Your task to perform on an android device: open app "Fetch Rewards" Image 0: 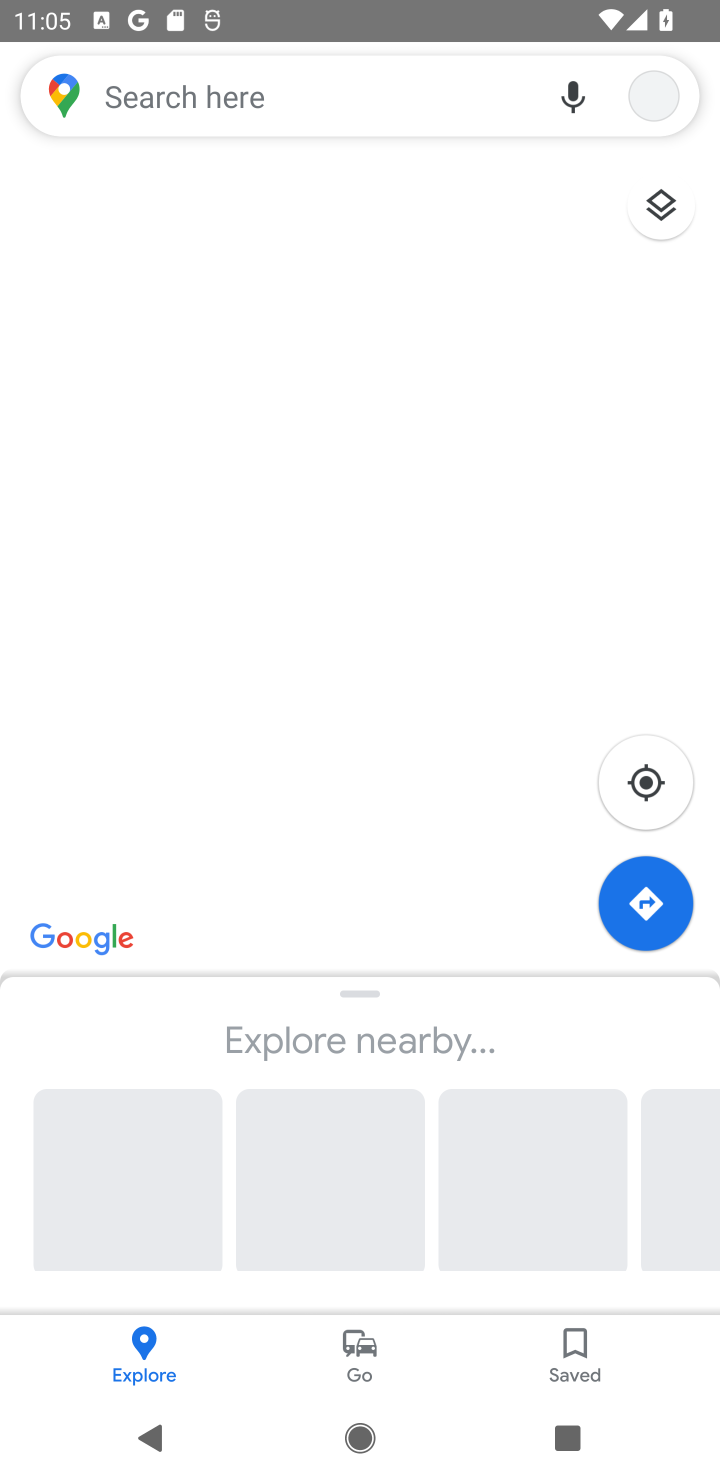
Step 0: press back button
Your task to perform on an android device: open app "Fetch Rewards" Image 1: 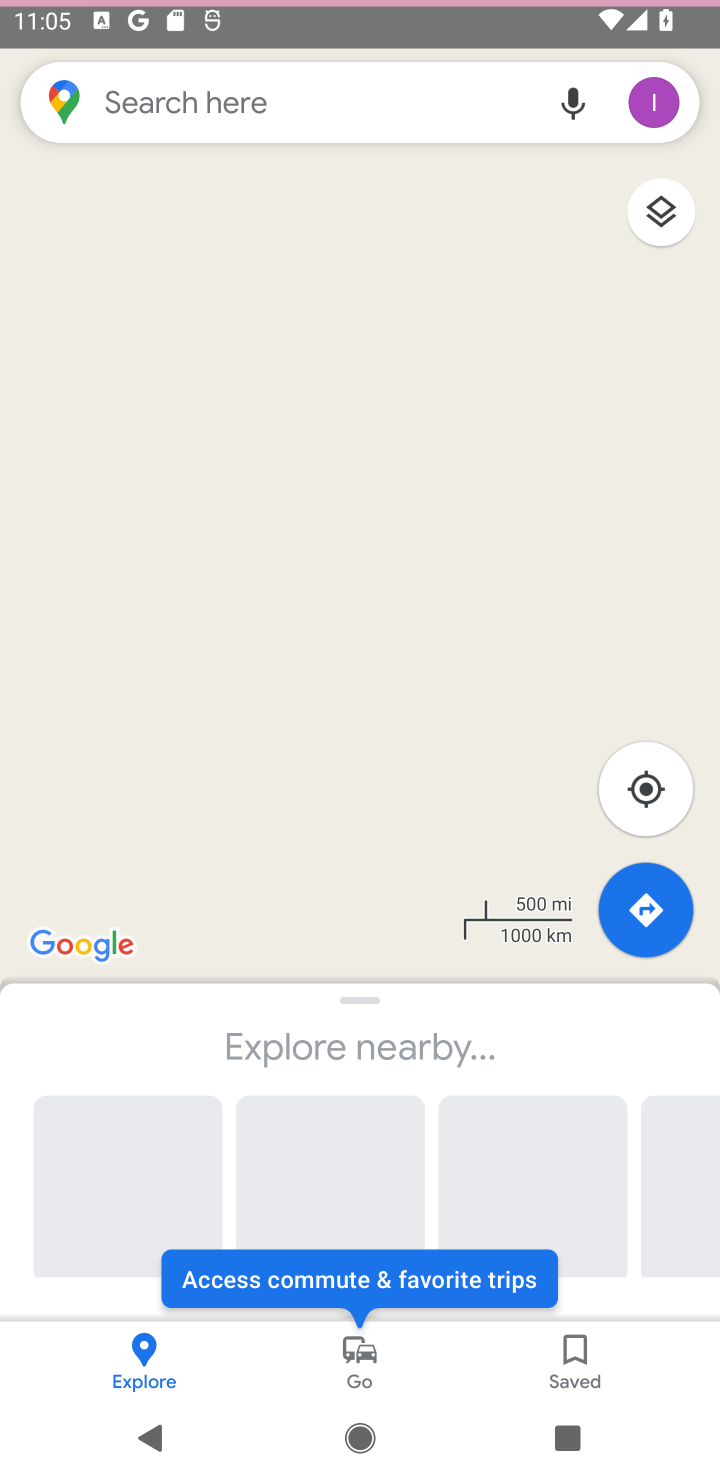
Step 1: press back button
Your task to perform on an android device: open app "Fetch Rewards" Image 2: 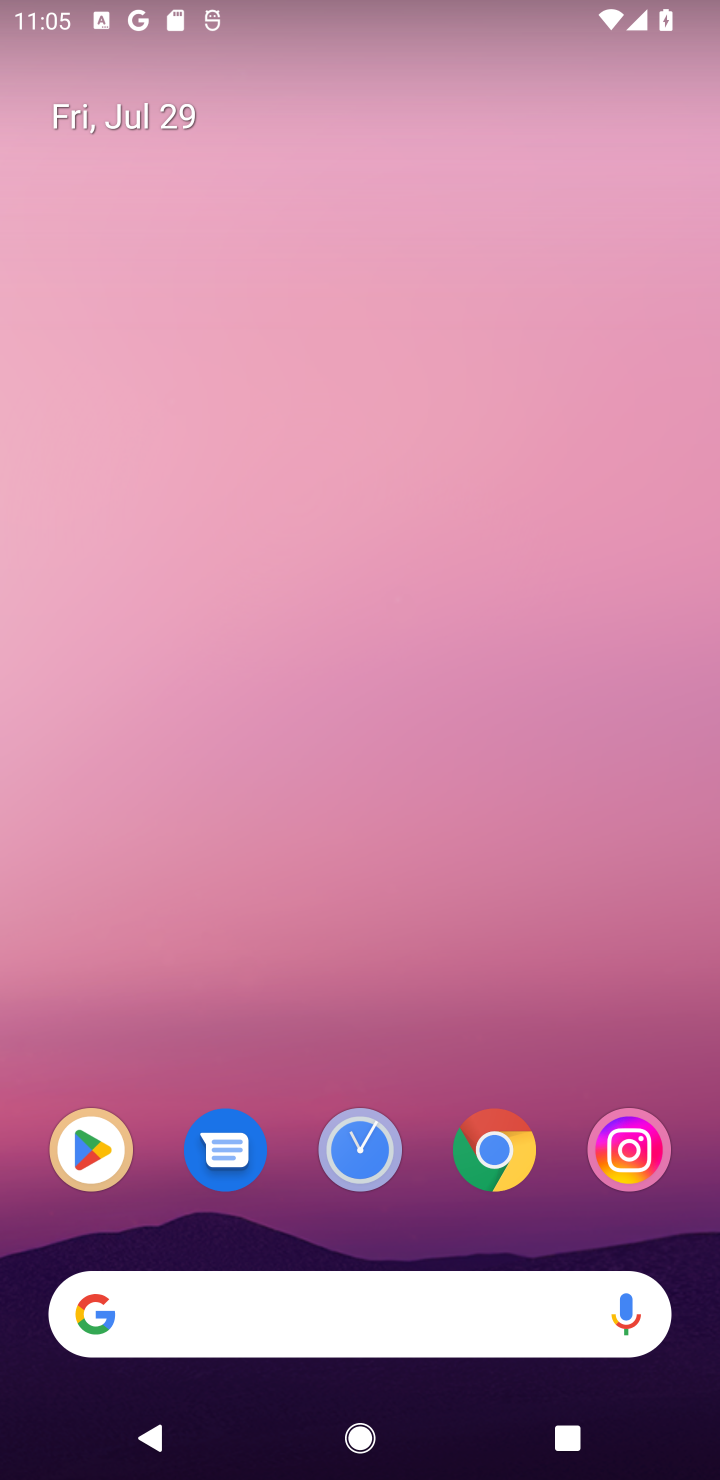
Step 2: drag from (348, 1097) to (406, 277)
Your task to perform on an android device: open app "Fetch Rewards" Image 3: 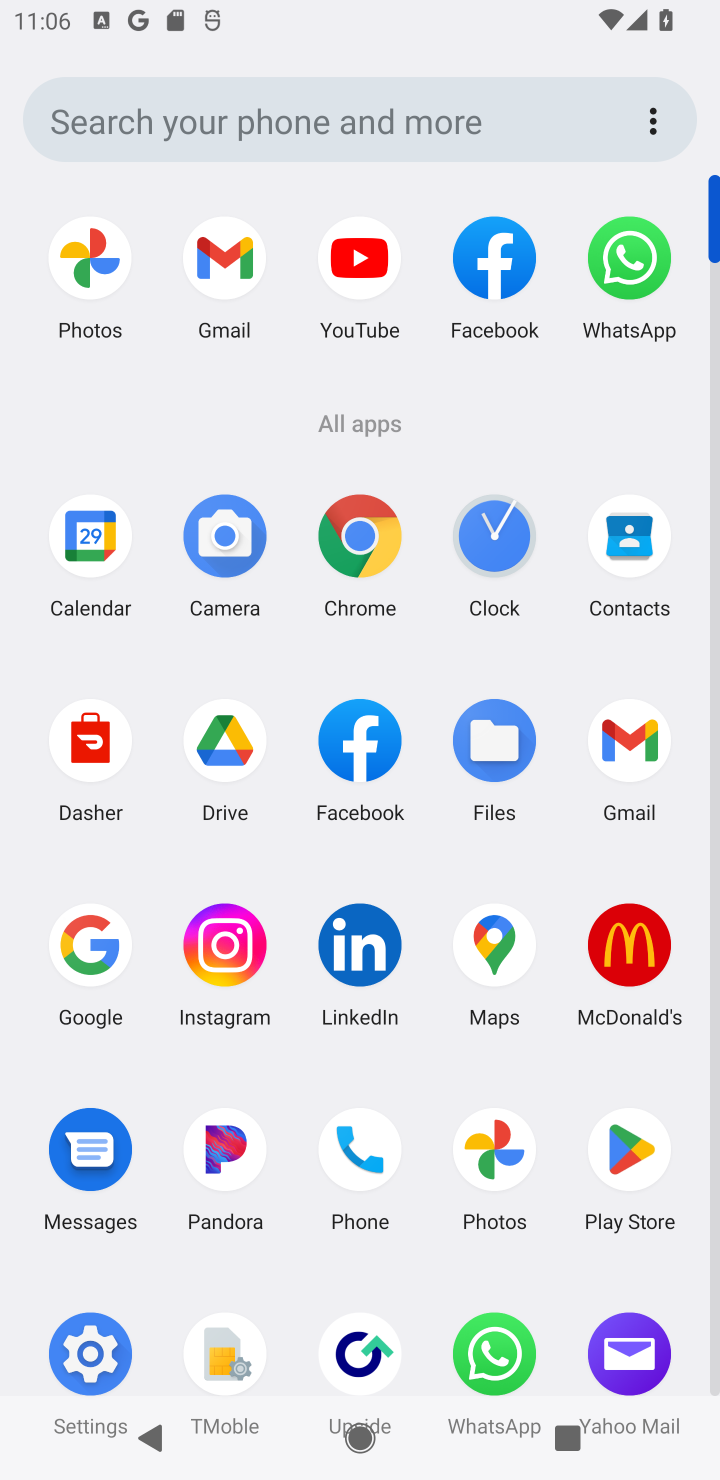
Step 3: click (624, 1162)
Your task to perform on an android device: open app "Fetch Rewards" Image 4: 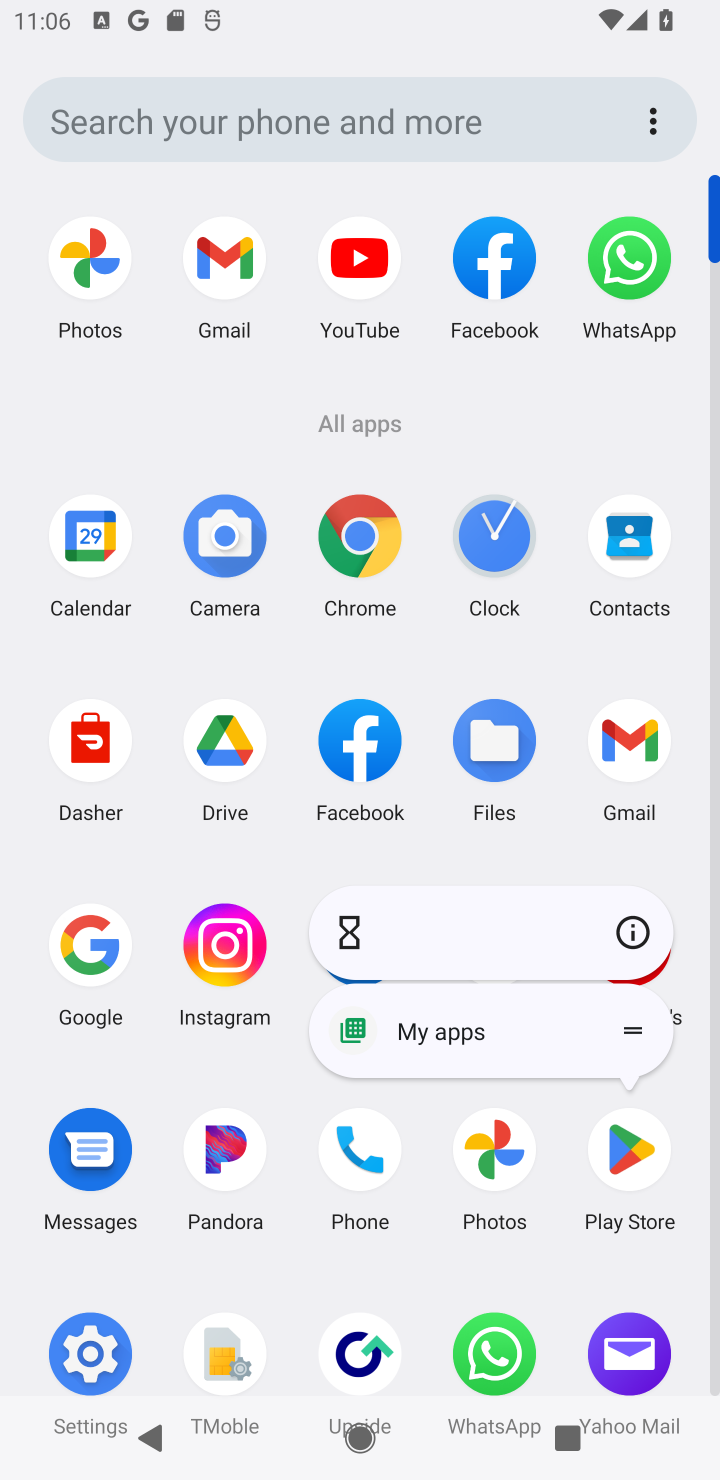
Step 4: click (633, 1160)
Your task to perform on an android device: open app "Fetch Rewards" Image 5: 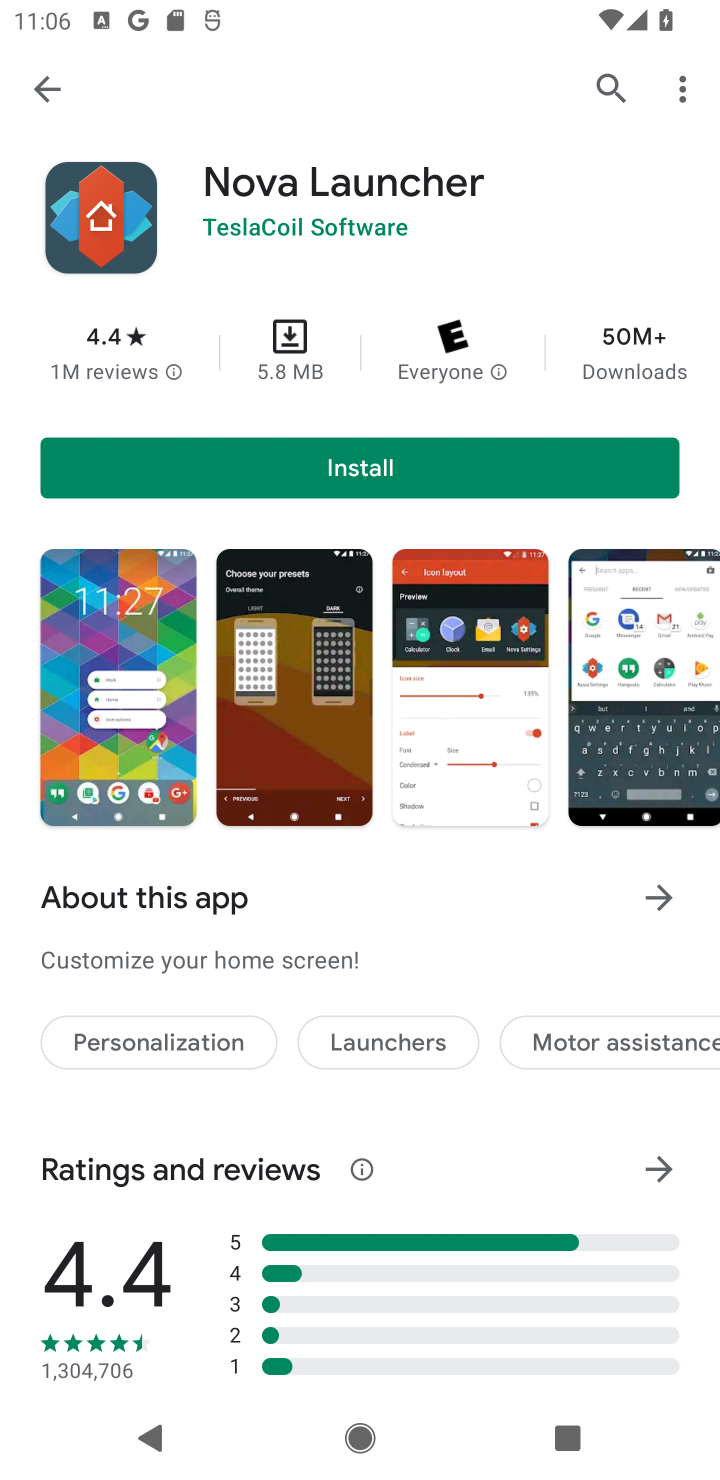
Step 5: click (613, 88)
Your task to perform on an android device: open app "Fetch Rewards" Image 6: 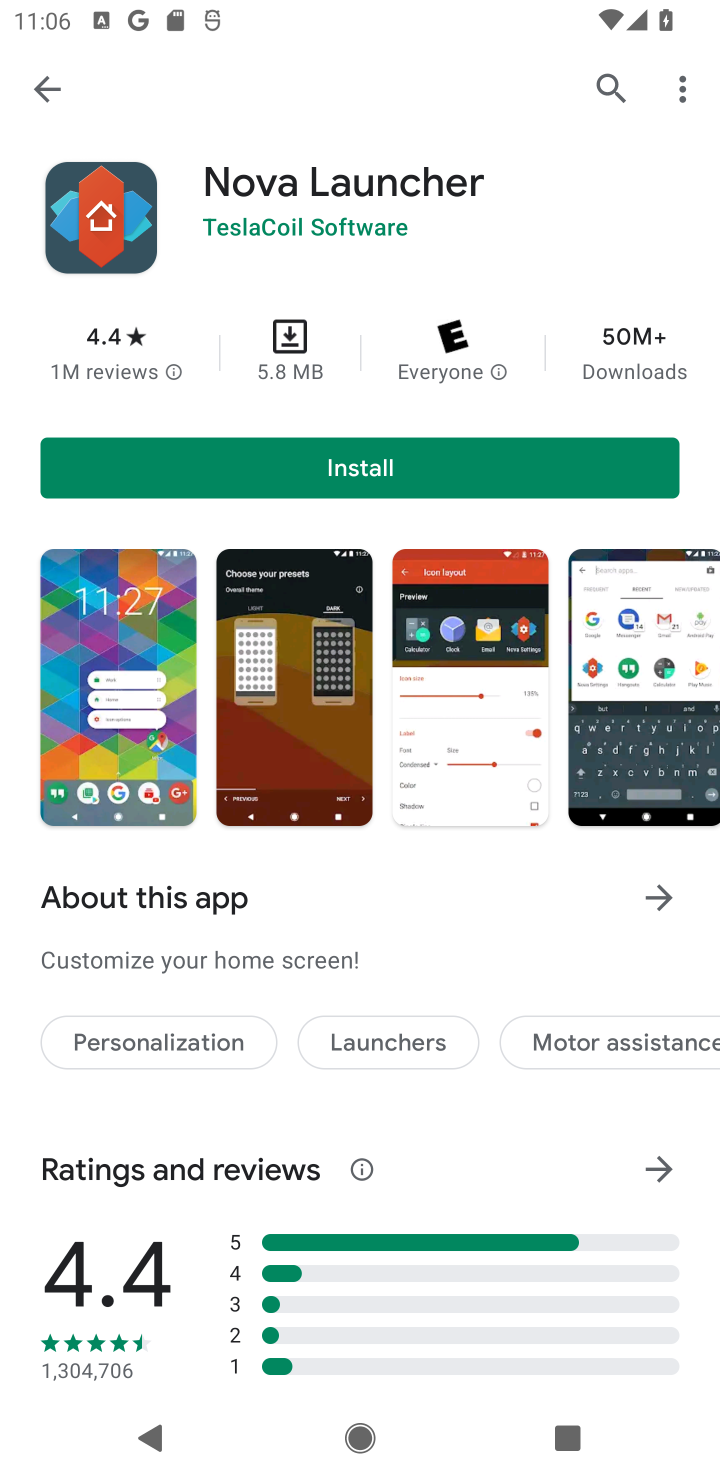
Step 6: click (598, 84)
Your task to perform on an android device: open app "Fetch Rewards" Image 7: 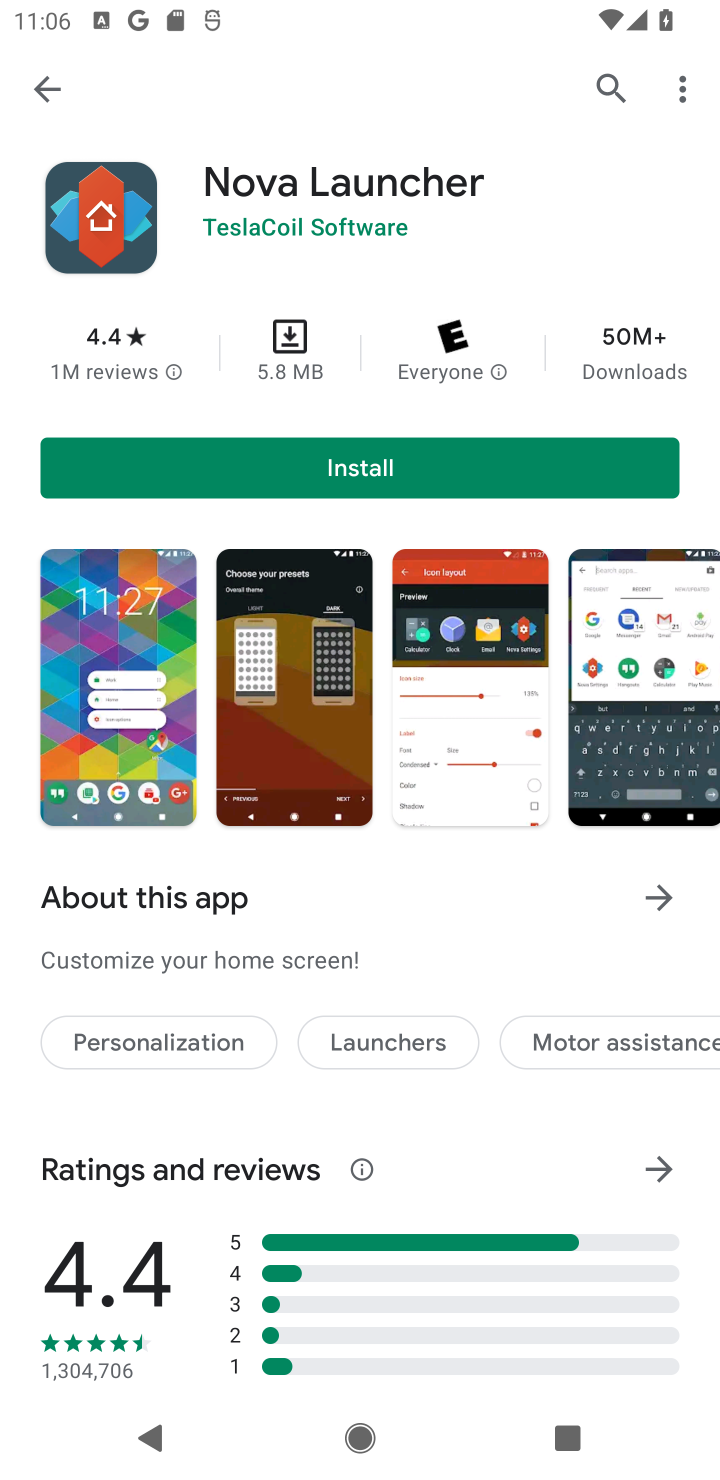
Step 7: click (602, 84)
Your task to perform on an android device: open app "Fetch Rewards" Image 8: 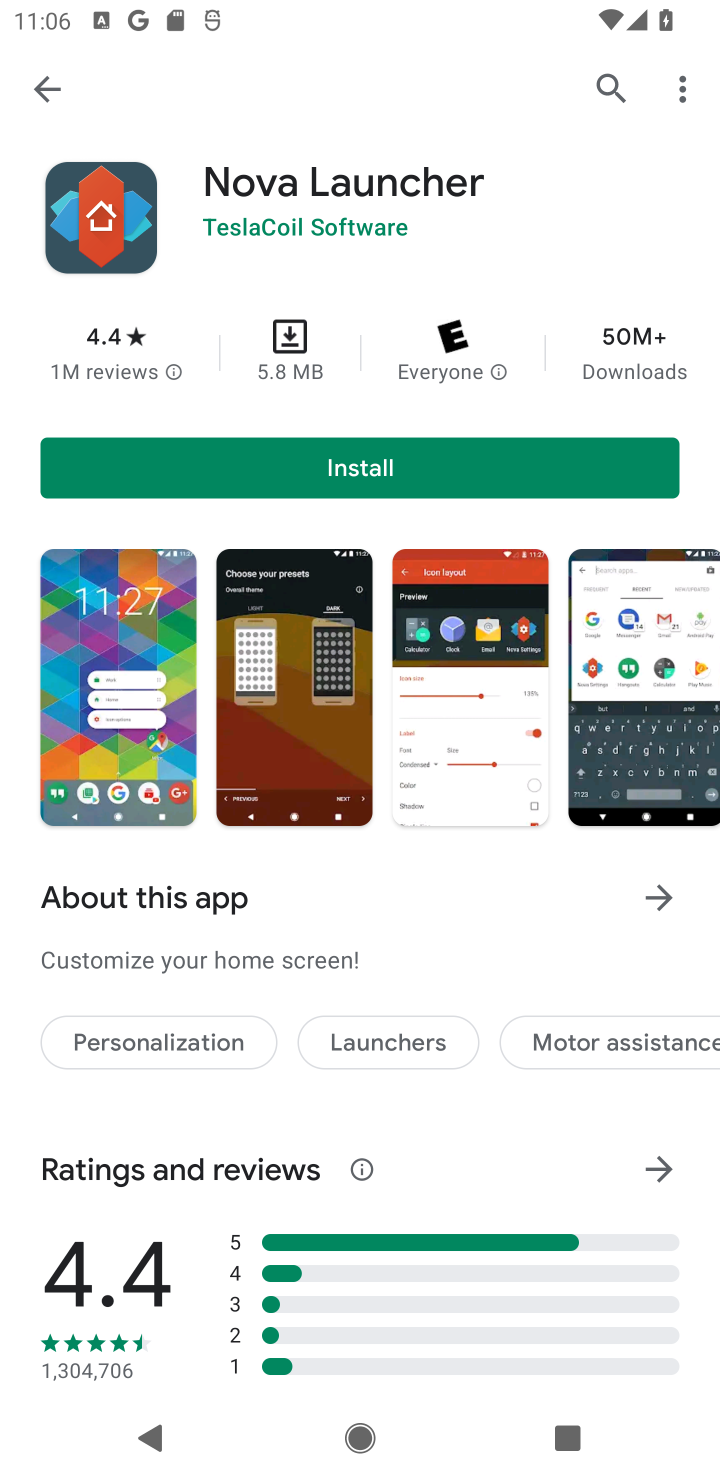
Step 8: click (618, 73)
Your task to perform on an android device: open app "Fetch Rewards" Image 9: 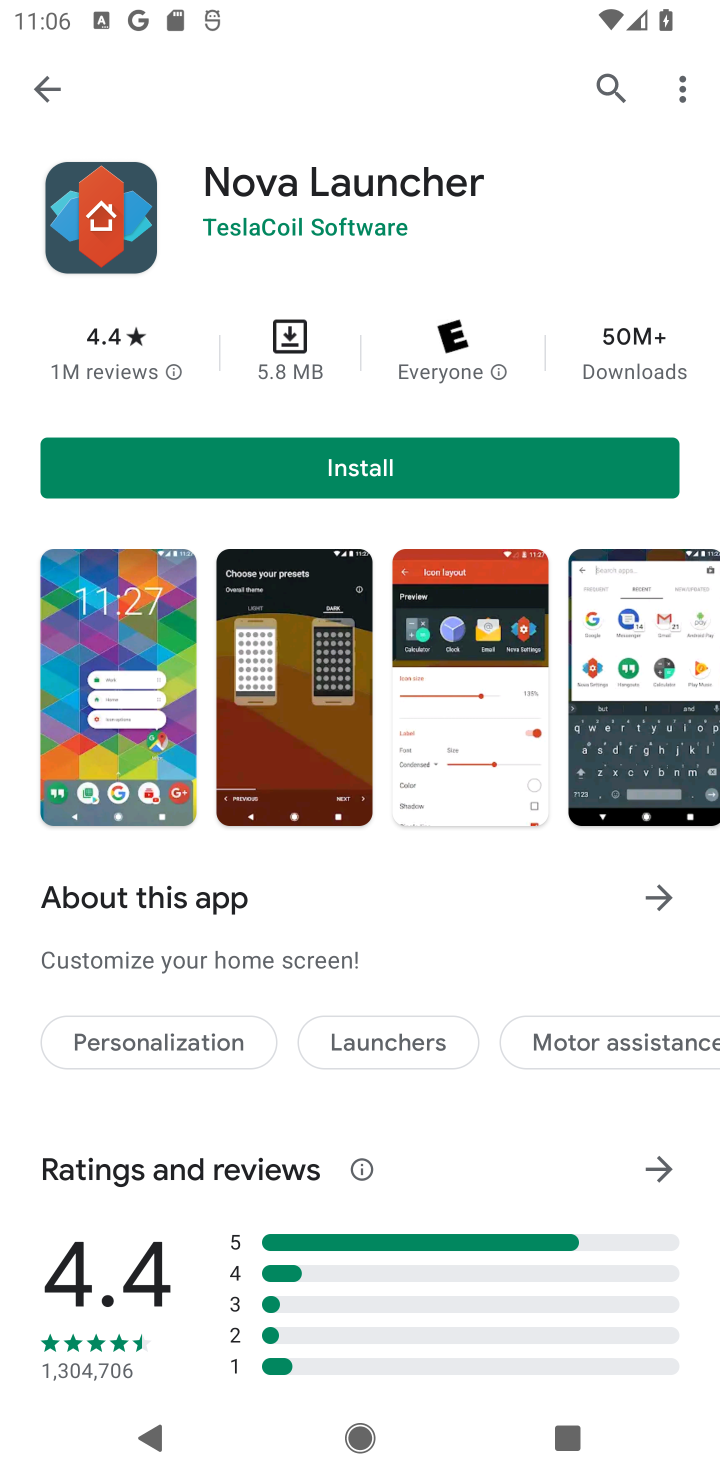
Step 9: click (38, 90)
Your task to perform on an android device: open app "Fetch Rewards" Image 10: 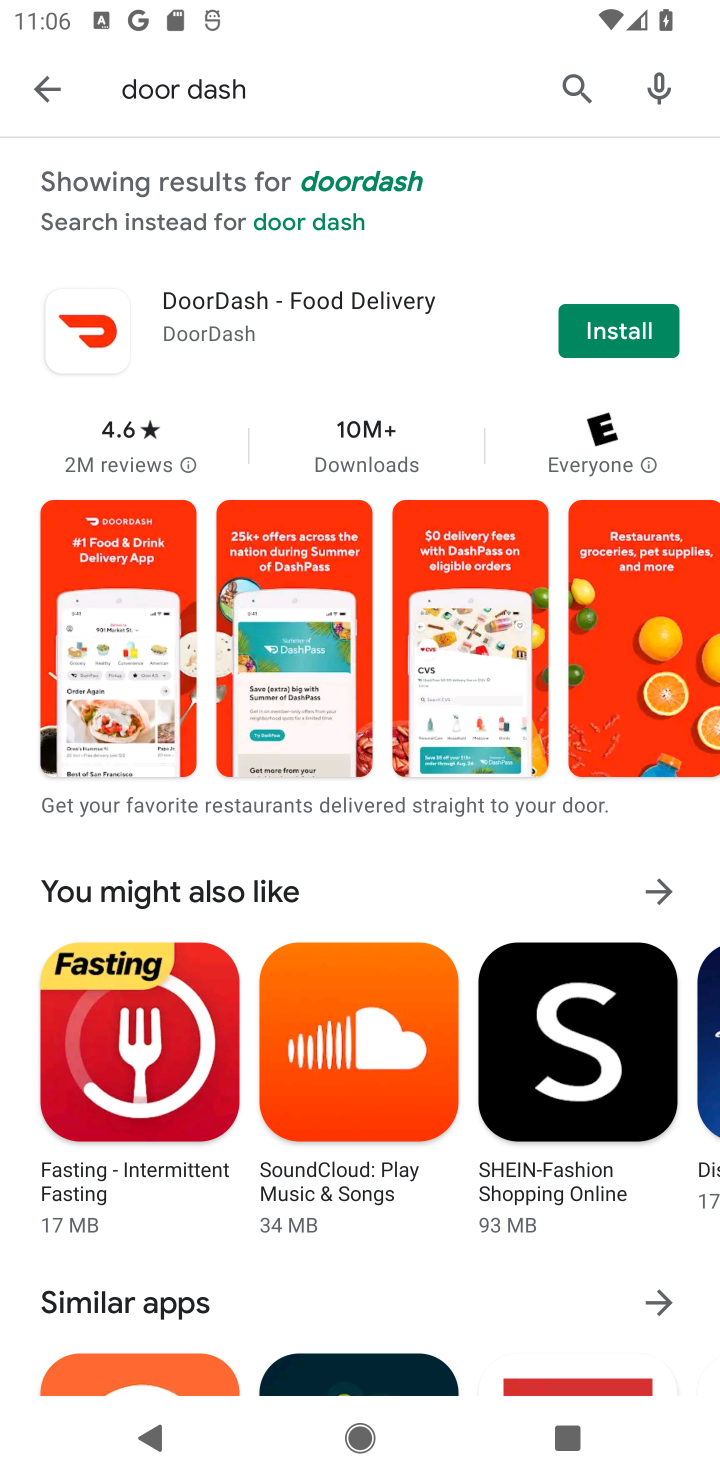
Step 10: click (571, 84)
Your task to perform on an android device: open app "Fetch Rewards" Image 11: 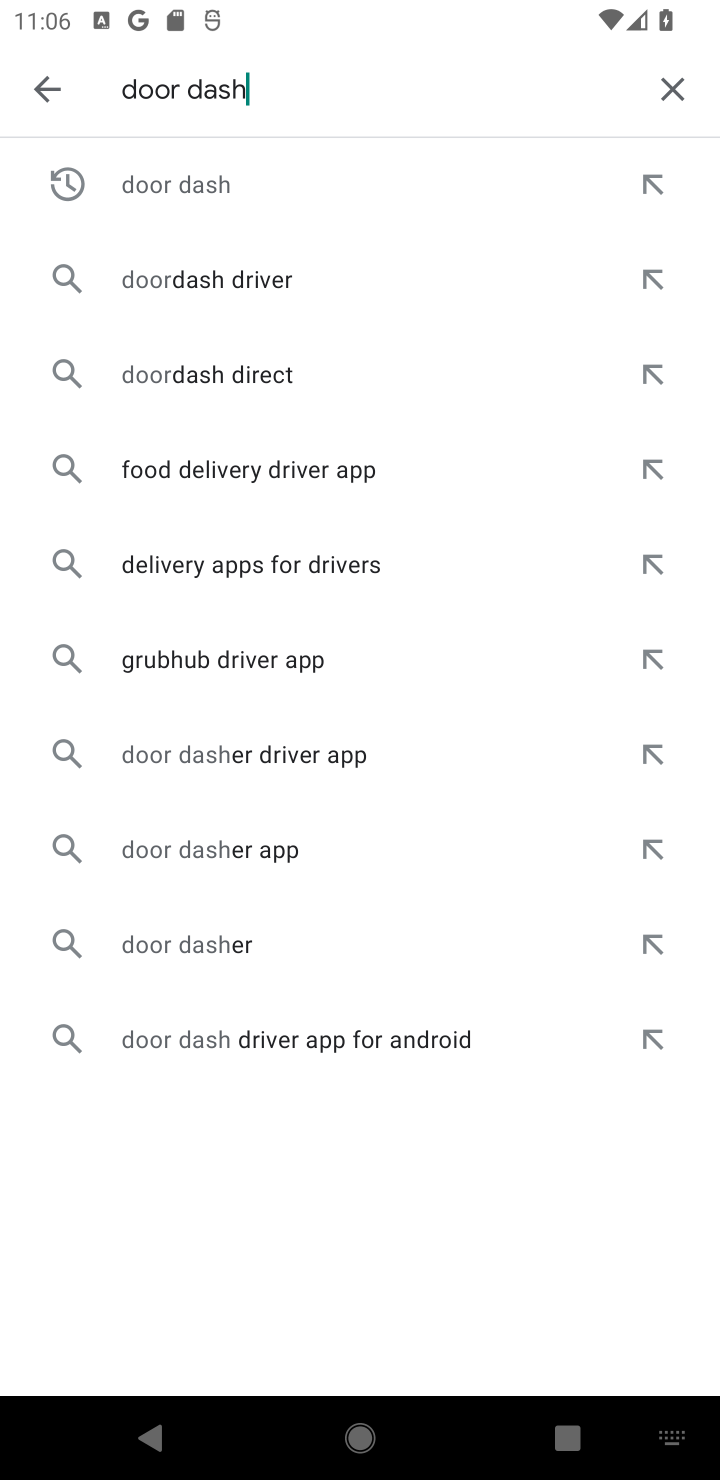
Step 11: click (684, 86)
Your task to perform on an android device: open app "Fetch Rewards" Image 12: 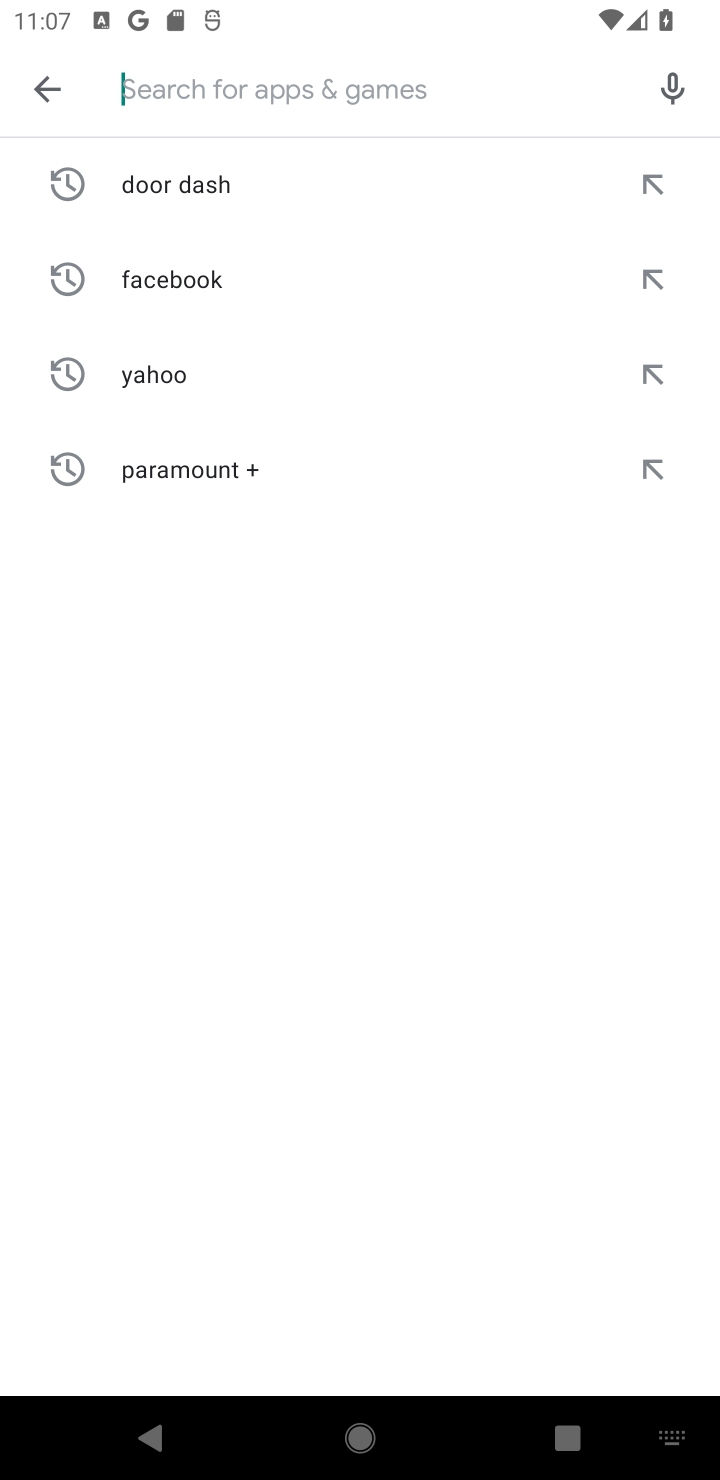
Step 12: type "fetch rewards"
Your task to perform on an android device: open app "Fetch Rewards" Image 13: 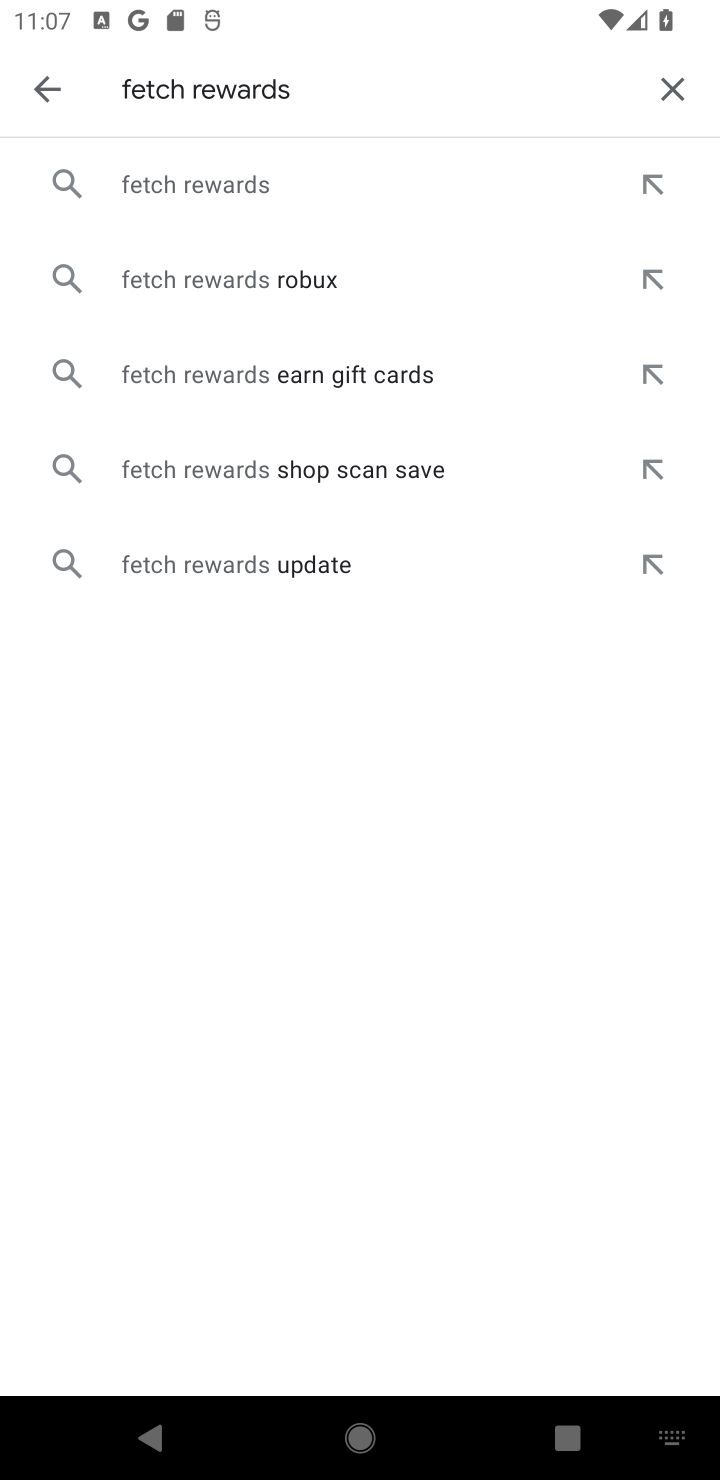
Step 13: click (300, 176)
Your task to perform on an android device: open app "Fetch Rewards" Image 14: 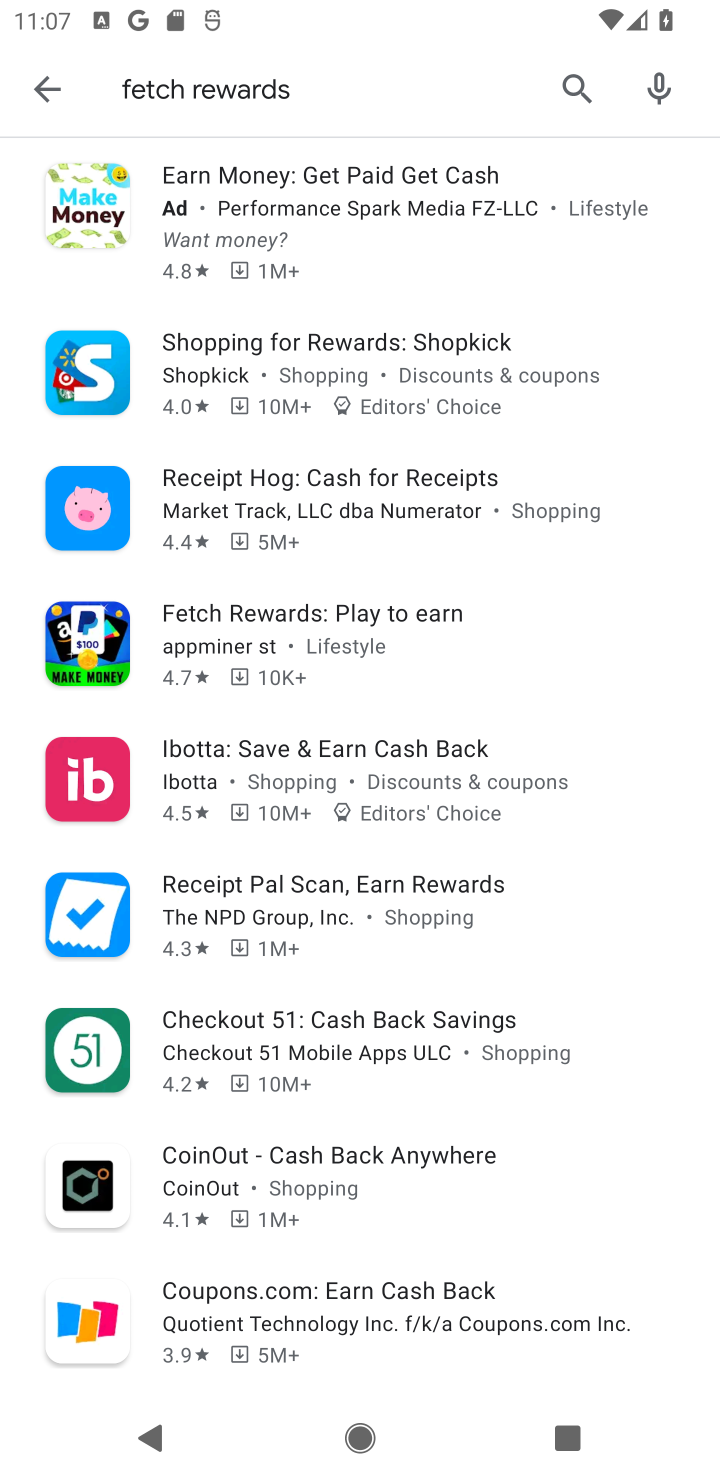
Step 14: task complete